Your task to perform on an android device: Check the weather Image 0: 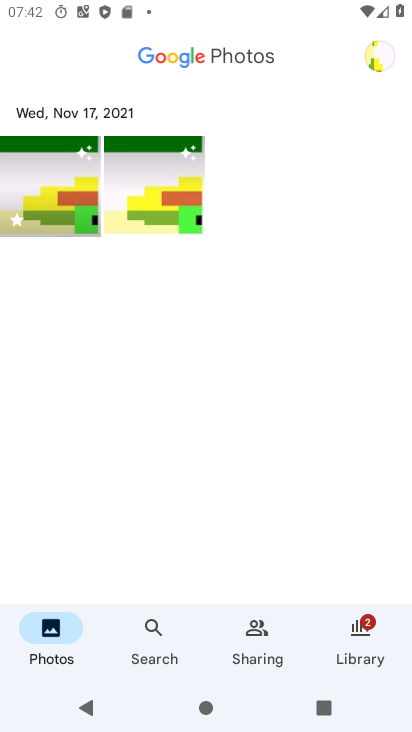
Step 0: press home button
Your task to perform on an android device: Check the weather Image 1: 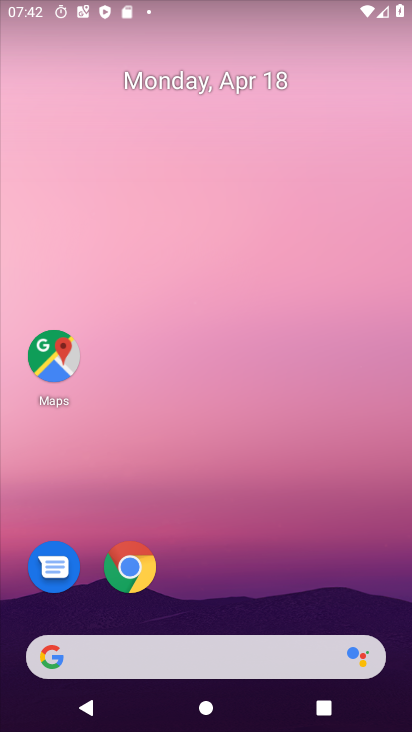
Step 1: drag from (294, 566) to (235, 224)
Your task to perform on an android device: Check the weather Image 2: 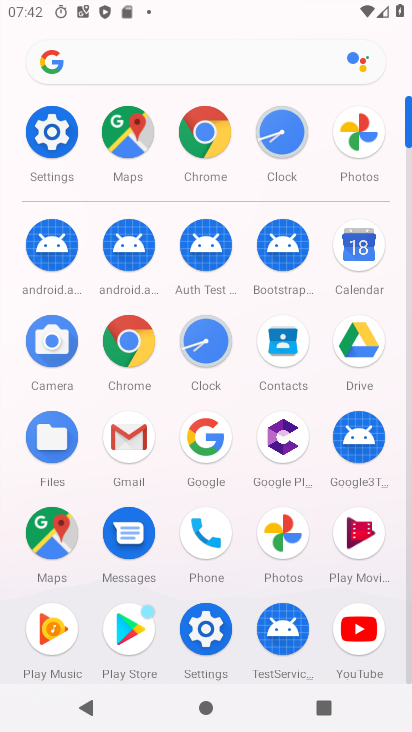
Step 2: click (213, 126)
Your task to perform on an android device: Check the weather Image 3: 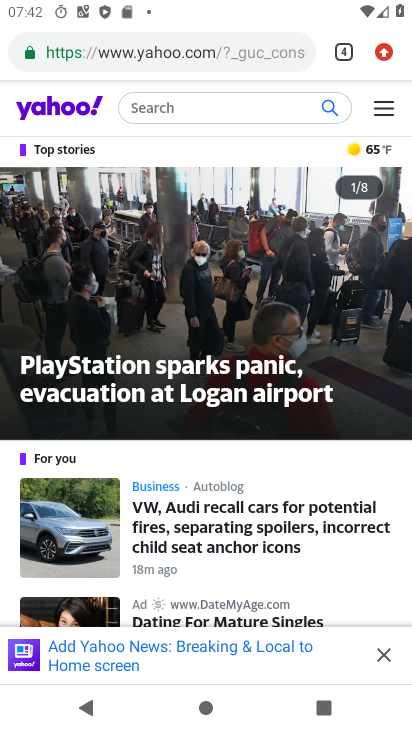
Step 3: click (212, 49)
Your task to perform on an android device: Check the weather Image 4: 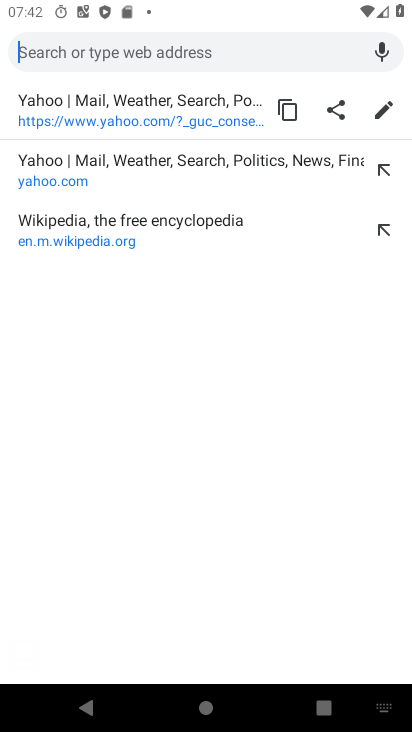
Step 4: type "weather"
Your task to perform on an android device: Check the weather Image 5: 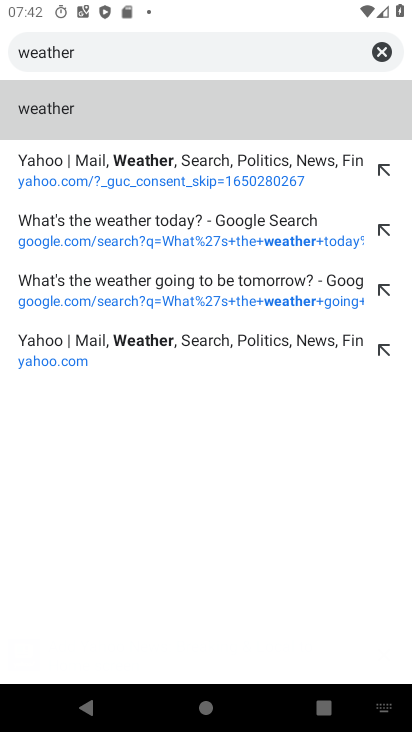
Step 5: click (113, 112)
Your task to perform on an android device: Check the weather Image 6: 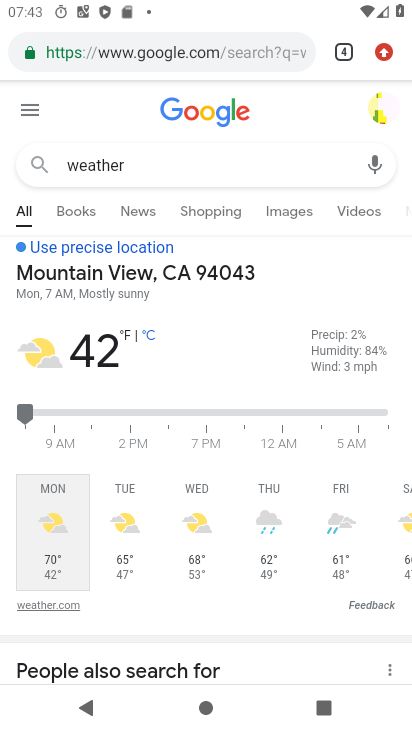
Step 6: task complete